Your task to perform on an android device: Open Google Chrome and click the shortcut for Amazon.com Image 0: 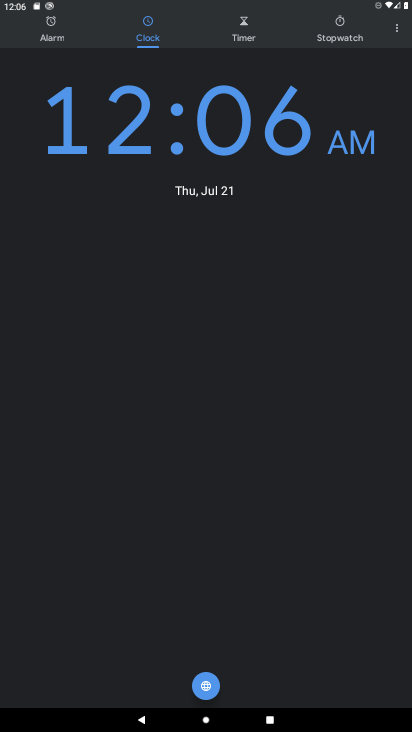
Step 0: press home button
Your task to perform on an android device: Open Google Chrome and click the shortcut for Amazon.com Image 1: 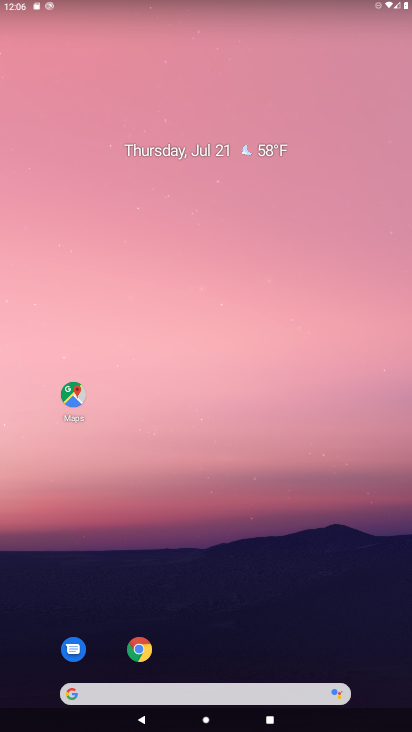
Step 1: click (137, 647)
Your task to perform on an android device: Open Google Chrome and click the shortcut for Amazon.com Image 2: 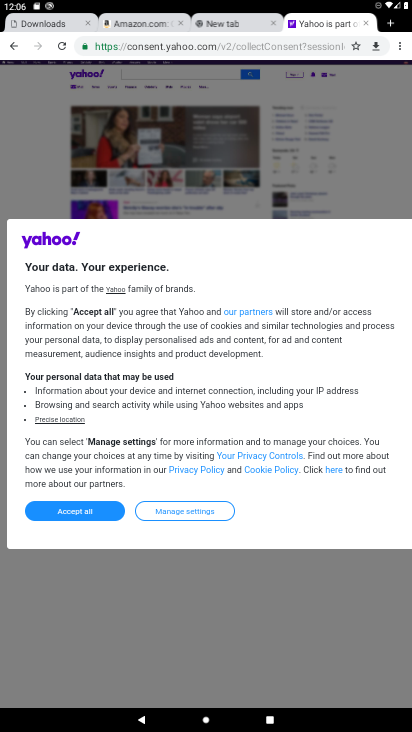
Step 2: click (130, 16)
Your task to perform on an android device: Open Google Chrome and click the shortcut for Amazon.com Image 3: 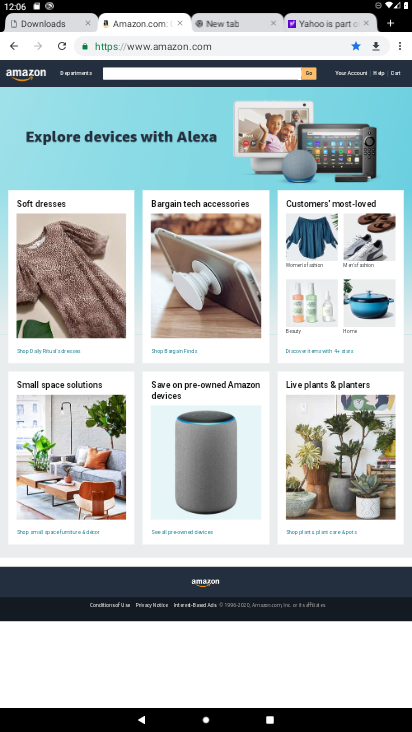
Step 3: click (401, 42)
Your task to perform on an android device: Open Google Chrome and click the shortcut for Amazon.com Image 4: 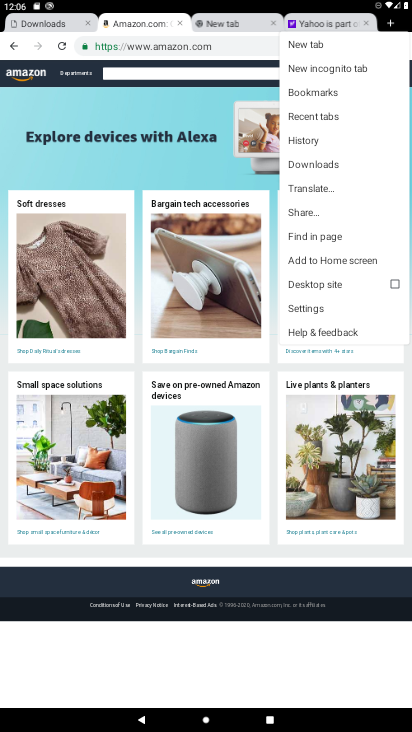
Step 4: click (352, 260)
Your task to perform on an android device: Open Google Chrome and click the shortcut for Amazon.com Image 5: 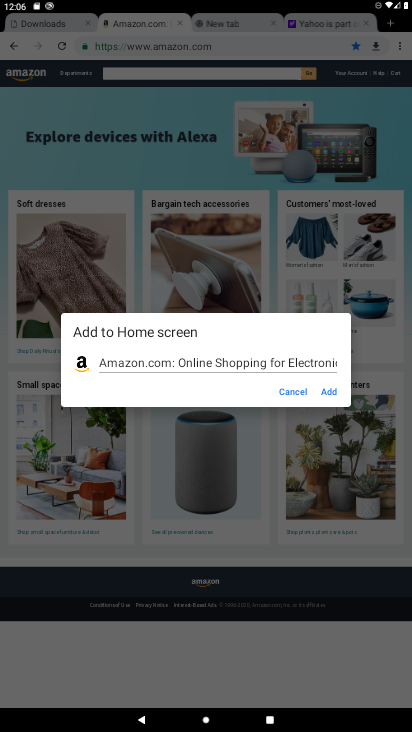
Step 5: click (330, 388)
Your task to perform on an android device: Open Google Chrome and click the shortcut for Amazon.com Image 6: 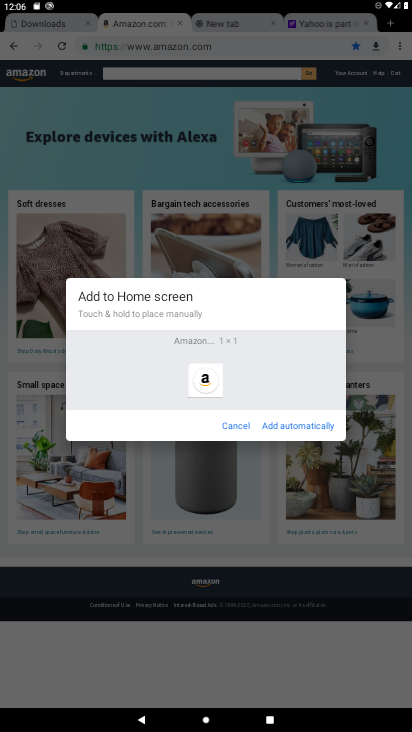
Step 6: click (317, 419)
Your task to perform on an android device: Open Google Chrome and click the shortcut for Amazon.com Image 7: 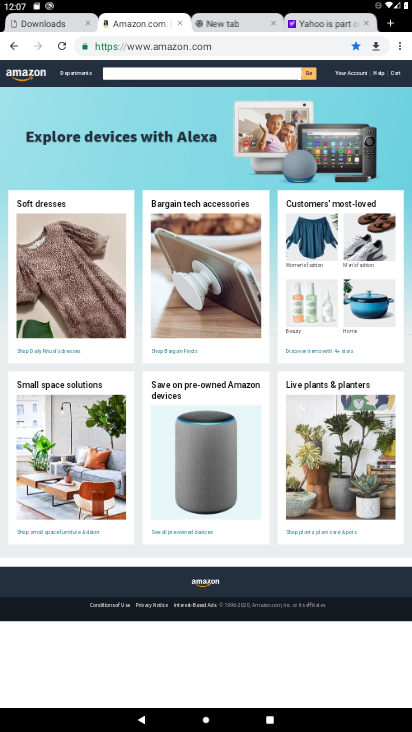
Step 7: task complete